Your task to perform on an android device: Open wifi settings Image 0: 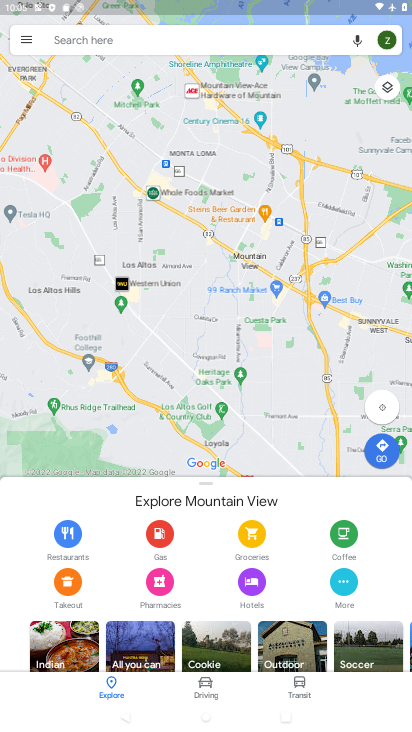
Step 0: press home button
Your task to perform on an android device: Open wifi settings Image 1: 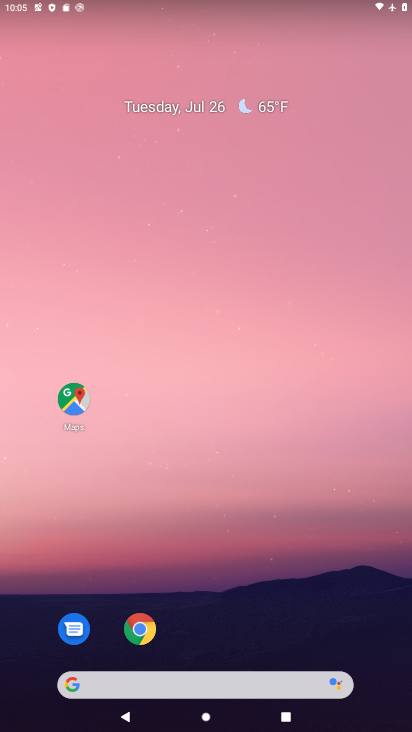
Step 1: drag from (332, 570) to (317, 50)
Your task to perform on an android device: Open wifi settings Image 2: 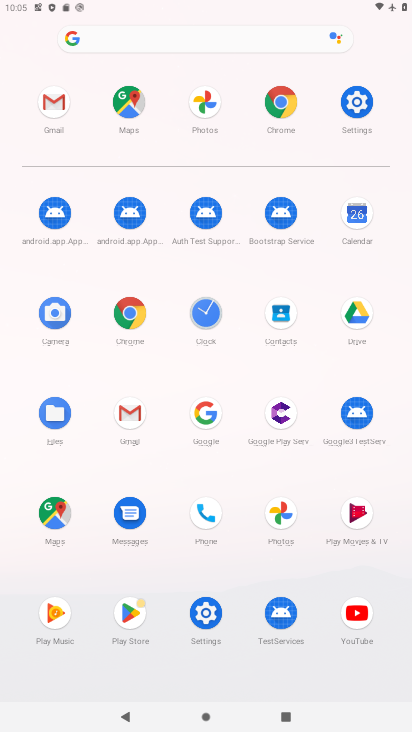
Step 2: click (370, 103)
Your task to perform on an android device: Open wifi settings Image 3: 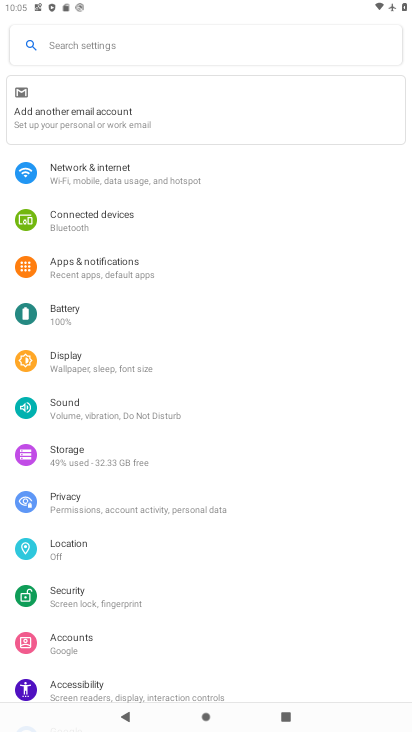
Step 3: click (149, 173)
Your task to perform on an android device: Open wifi settings Image 4: 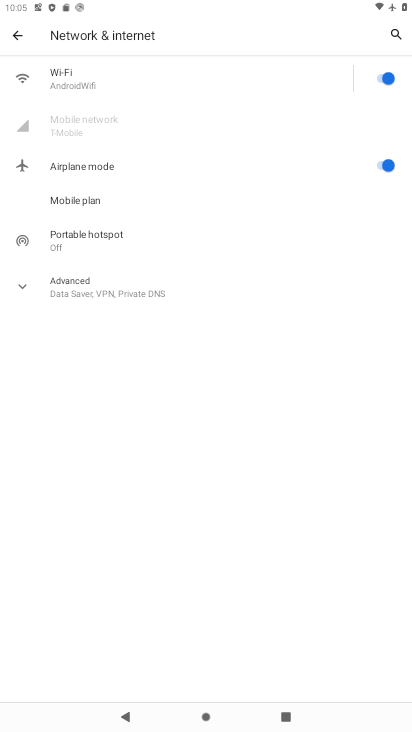
Step 4: click (127, 77)
Your task to perform on an android device: Open wifi settings Image 5: 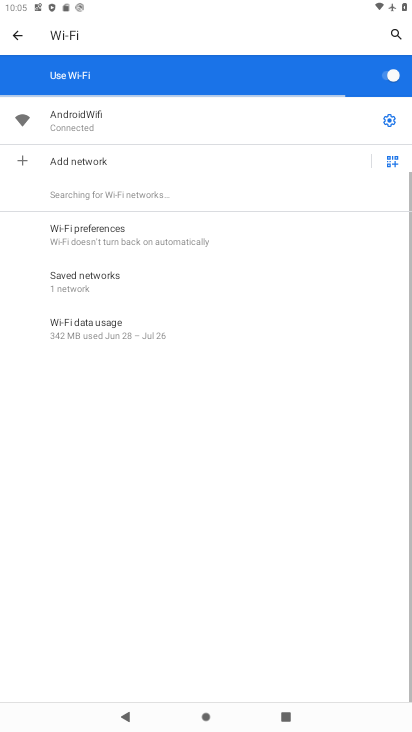
Step 5: click (386, 123)
Your task to perform on an android device: Open wifi settings Image 6: 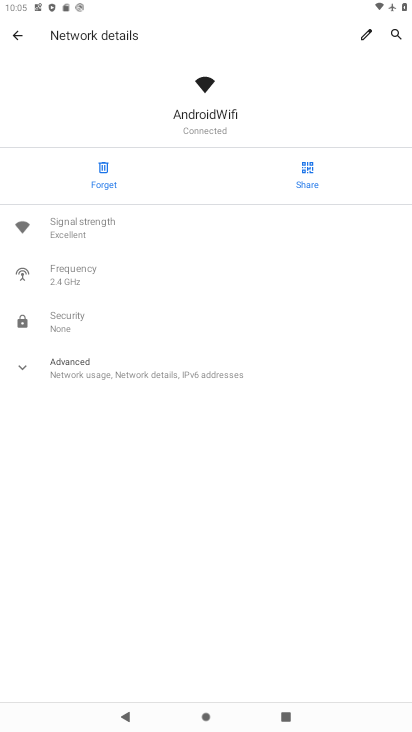
Step 6: task complete